Your task to perform on an android device: change keyboard looks Image 0: 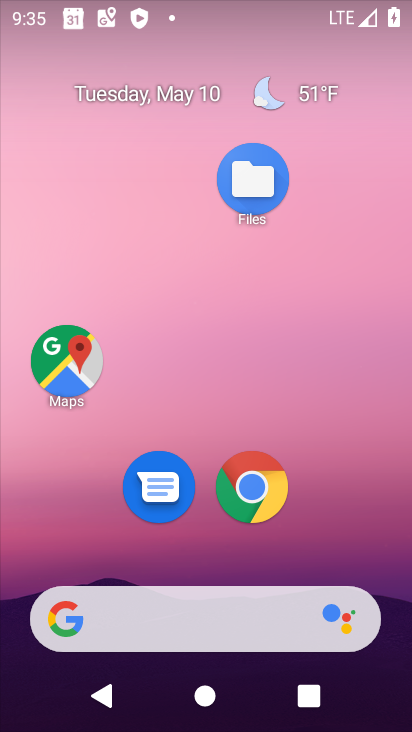
Step 0: drag from (190, 555) to (215, 1)
Your task to perform on an android device: change keyboard looks Image 1: 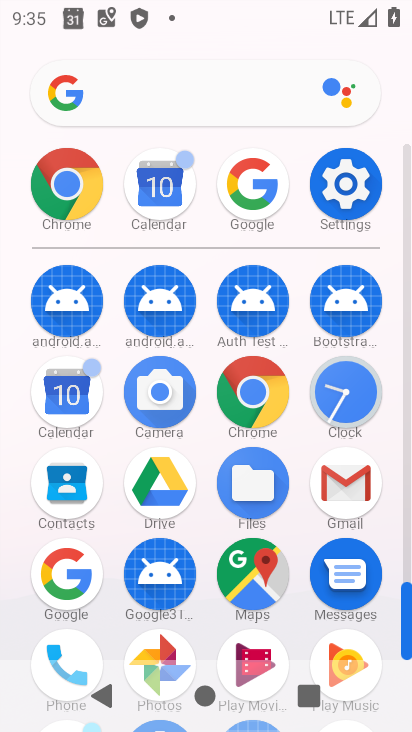
Step 1: click (342, 175)
Your task to perform on an android device: change keyboard looks Image 2: 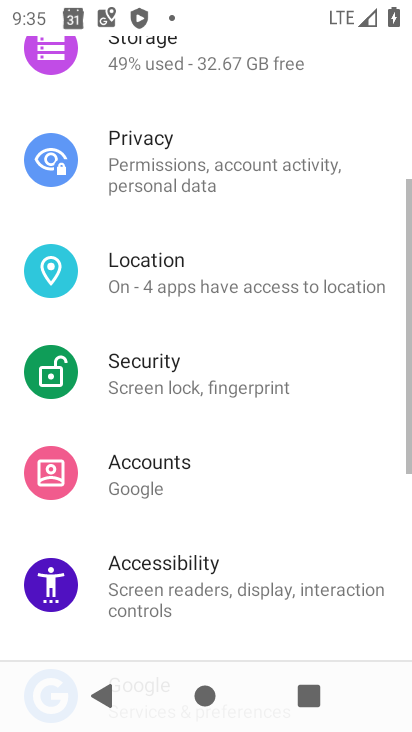
Step 2: drag from (217, 575) to (343, 4)
Your task to perform on an android device: change keyboard looks Image 3: 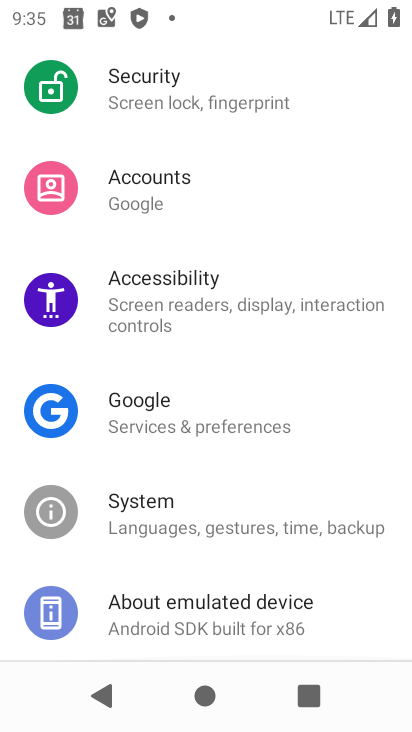
Step 3: drag from (253, 490) to (269, 225)
Your task to perform on an android device: change keyboard looks Image 4: 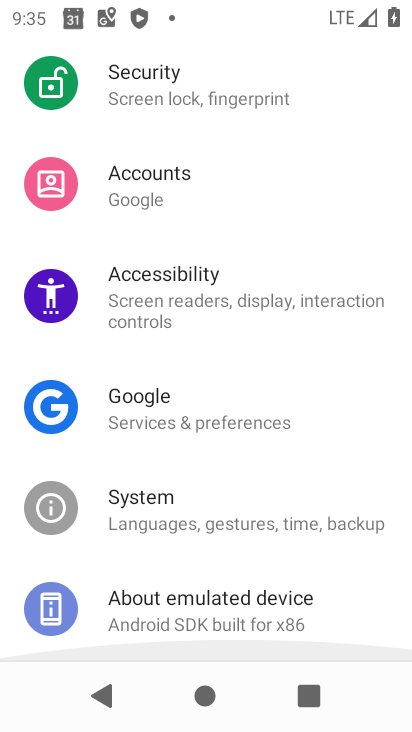
Step 4: click (208, 506)
Your task to perform on an android device: change keyboard looks Image 5: 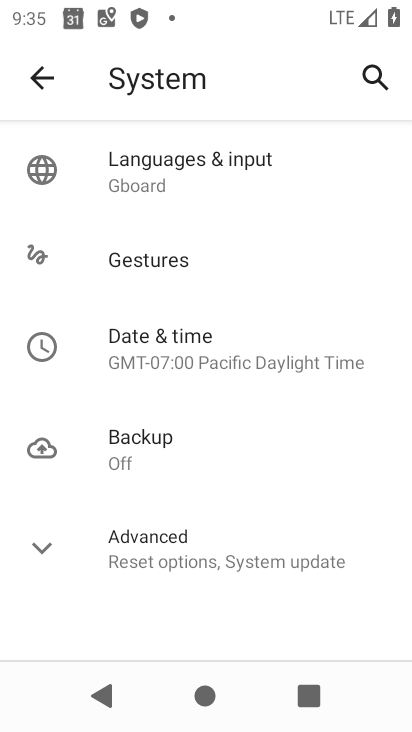
Step 5: click (160, 167)
Your task to perform on an android device: change keyboard looks Image 6: 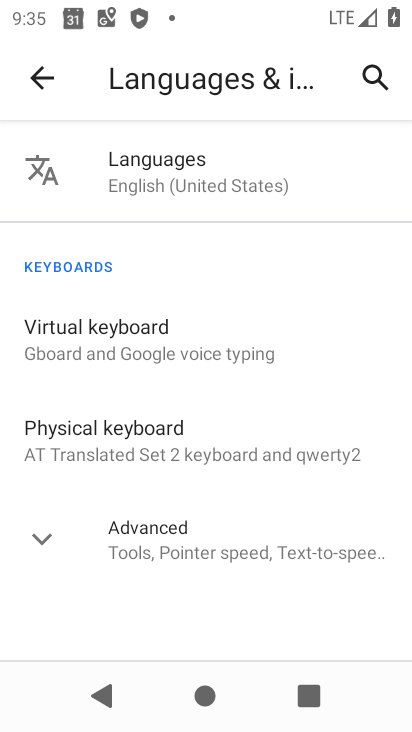
Step 6: click (112, 333)
Your task to perform on an android device: change keyboard looks Image 7: 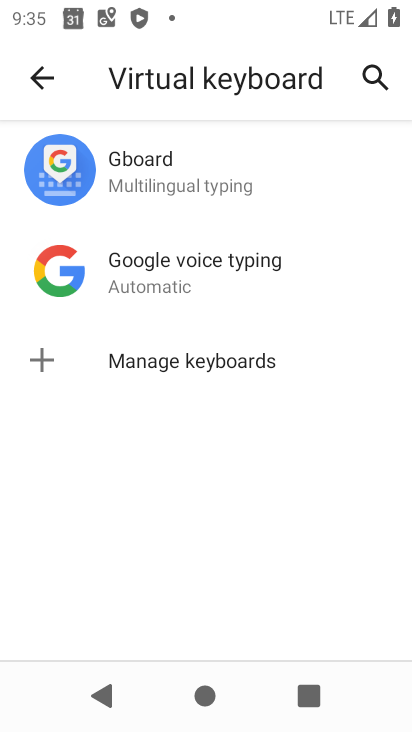
Step 7: click (136, 180)
Your task to perform on an android device: change keyboard looks Image 8: 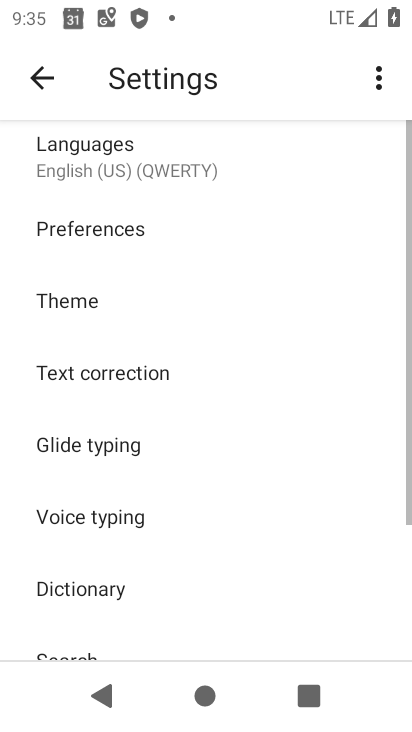
Step 8: click (108, 294)
Your task to perform on an android device: change keyboard looks Image 9: 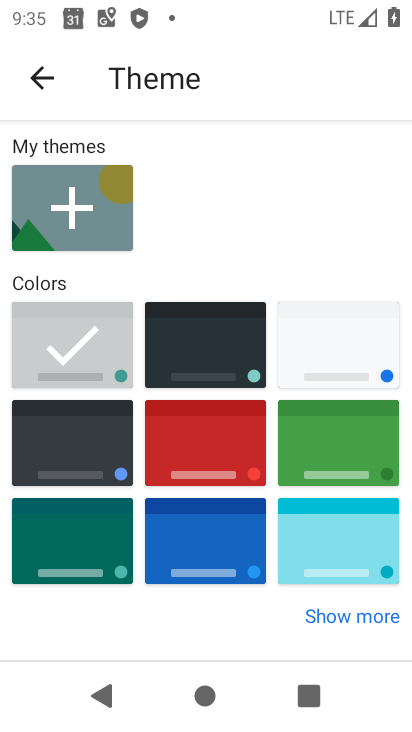
Step 9: click (191, 375)
Your task to perform on an android device: change keyboard looks Image 10: 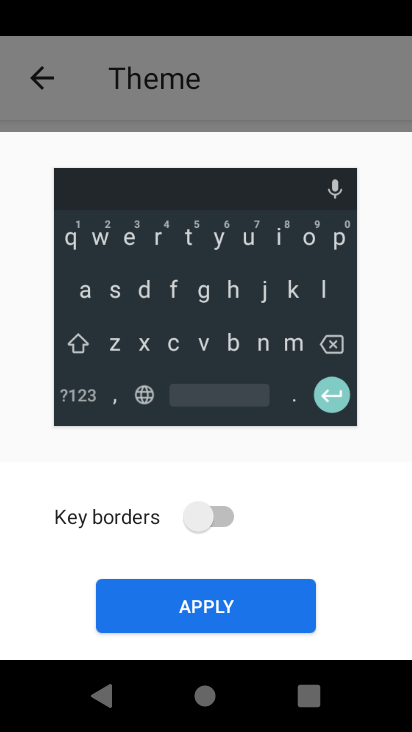
Step 10: click (188, 604)
Your task to perform on an android device: change keyboard looks Image 11: 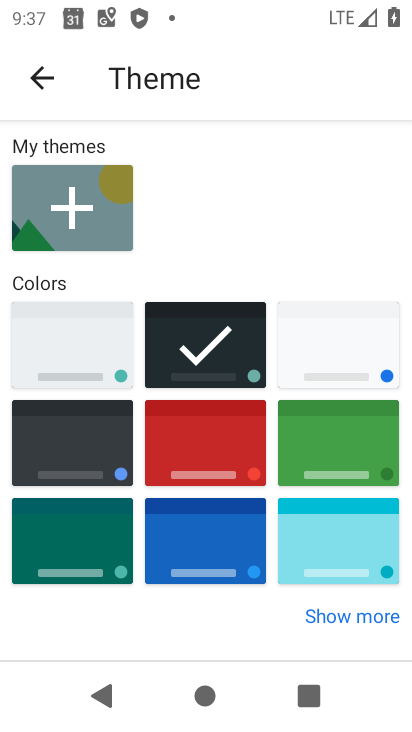
Step 11: task complete